Your task to perform on an android device: Search for pizza restaurants on Maps Image 0: 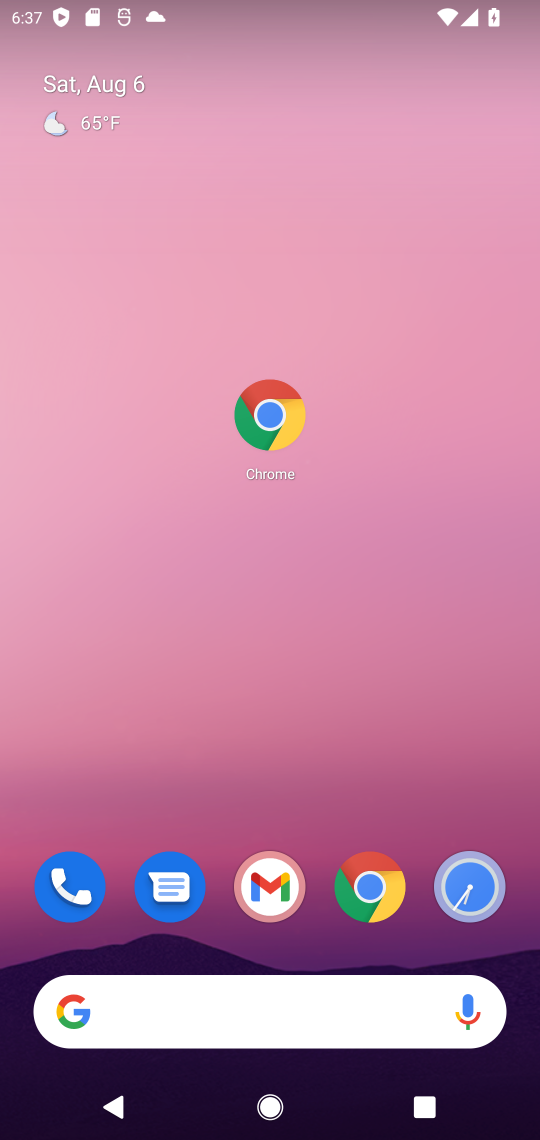
Step 0: drag from (100, 306) to (69, 59)
Your task to perform on an android device: Search for pizza restaurants on Maps Image 1: 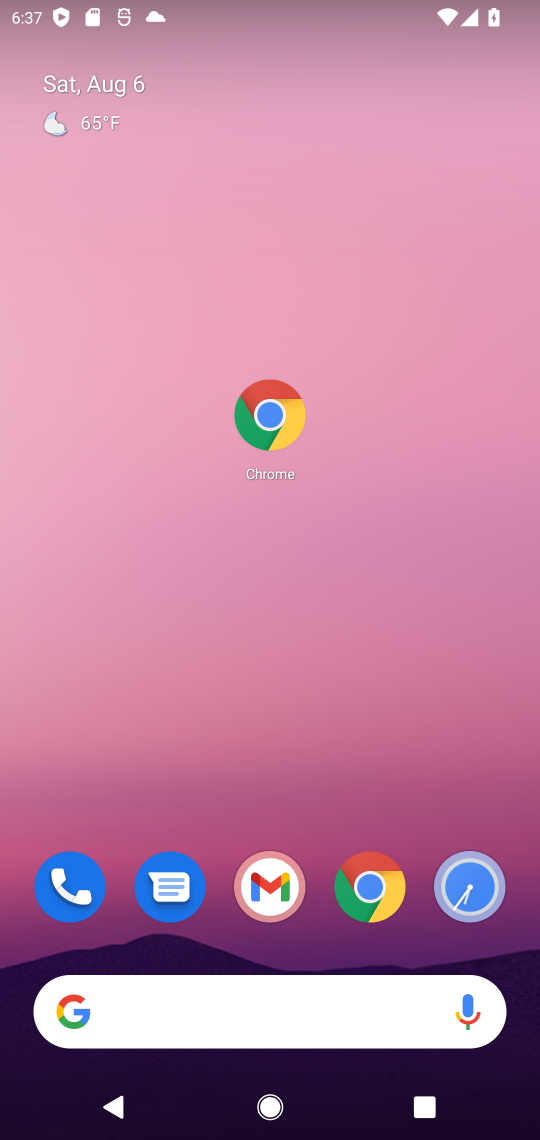
Step 1: drag from (154, 257) to (111, 27)
Your task to perform on an android device: Search for pizza restaurants on Maps Image 2: 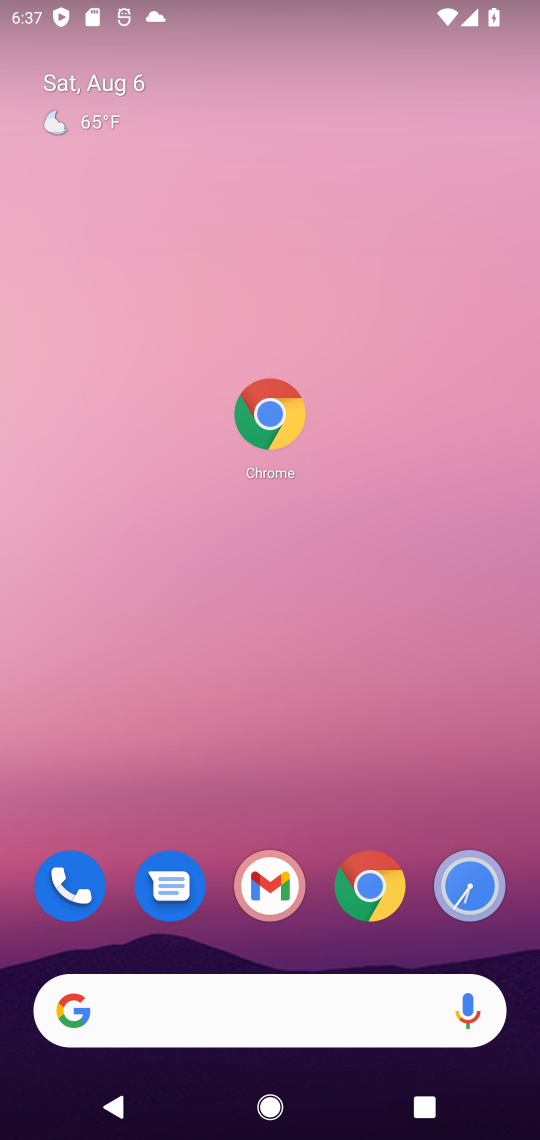
Step 2: drag from (183, 404) to (150, 218)
Your task to perform on an android device: Search for pizza restaurants on Maps Image 3: 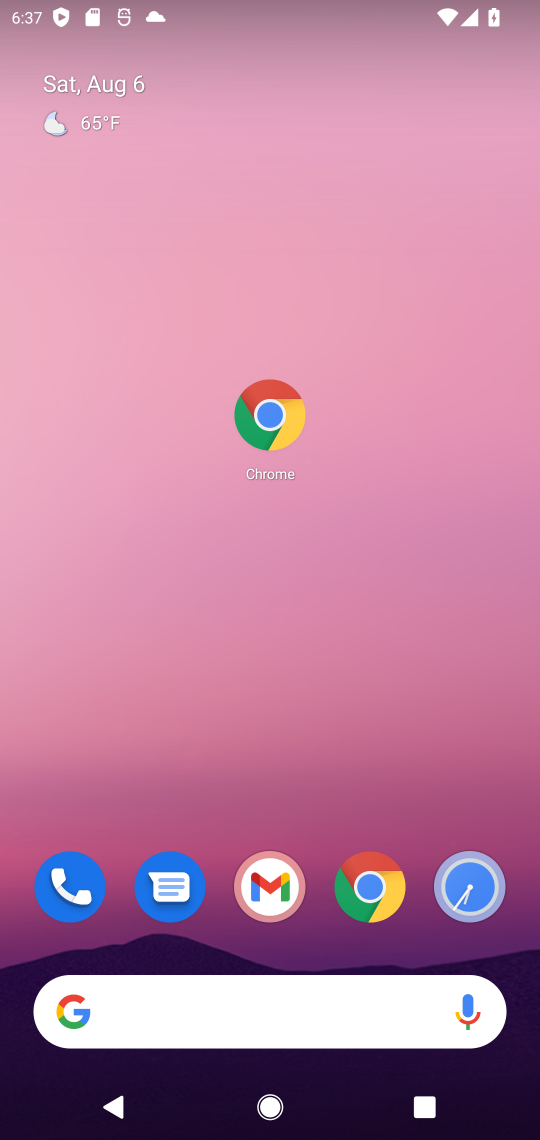
Step 3: drag from (239, 485) to (223, 377)
Your task to perform on an android device: Search for pizza restaurants on Maps Image 4: 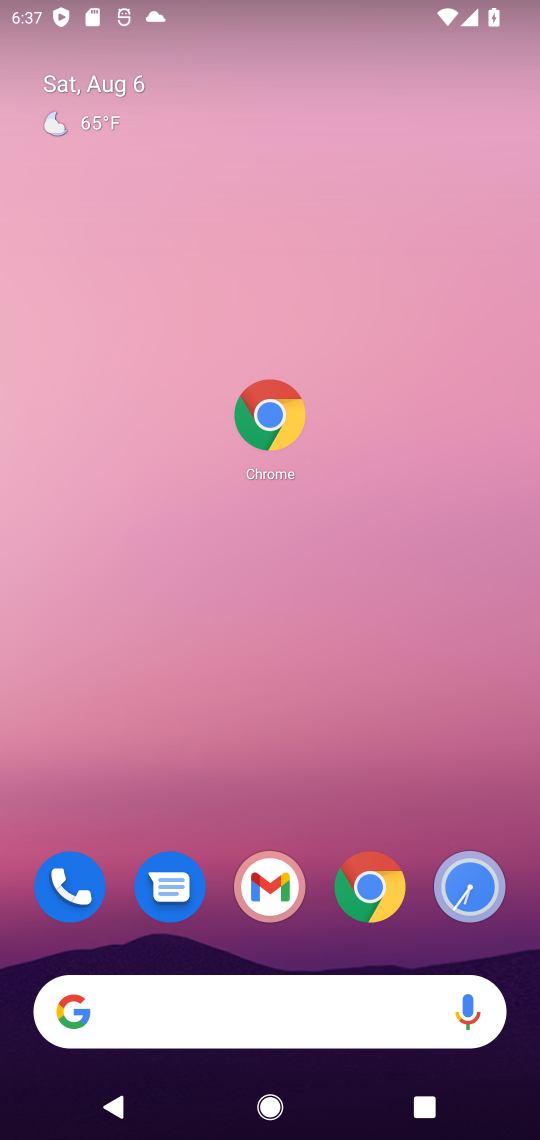
Step 4: click (279, 327)
Your task to perform on an android device: Search for pizza restaurants on Maps Image 5: 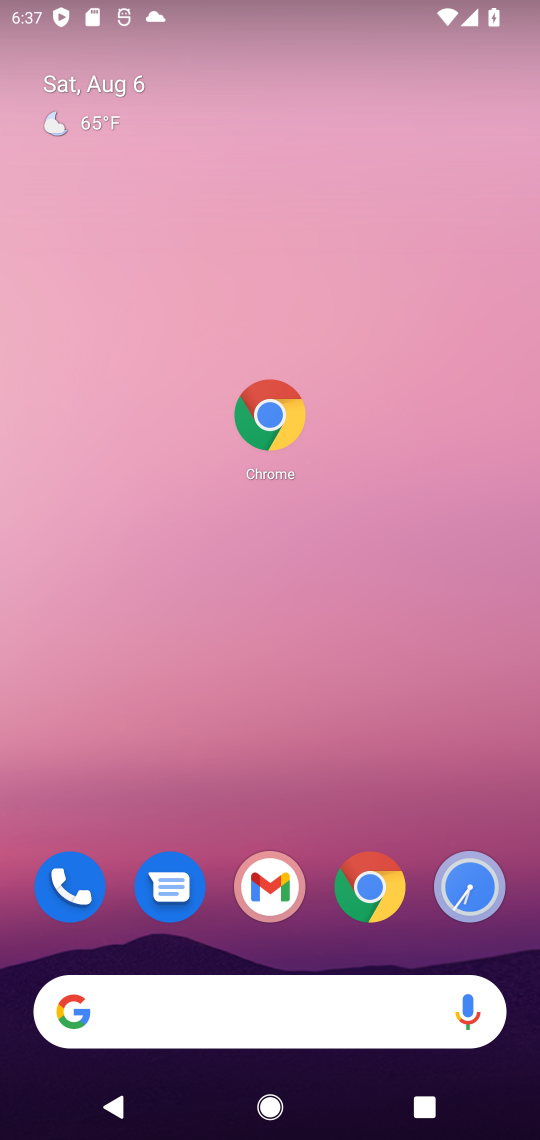
Step 5: drag from (260, 793) to (206, 380)
Your task to perform on an android device: Search for pizza restaurants on Maps Image 6: 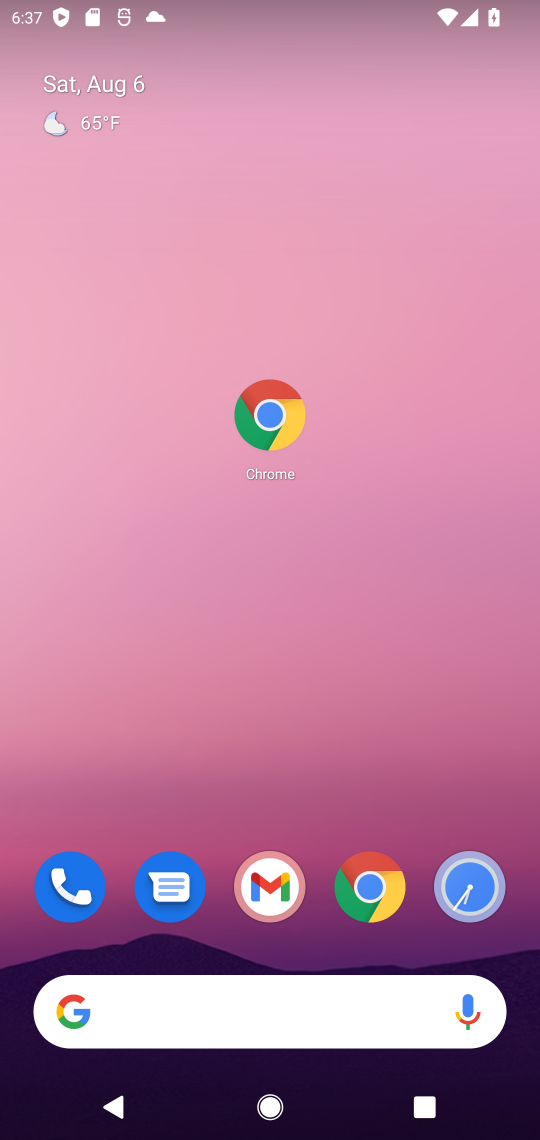
Step 6: drag from (328, 822) to (281, 241)
Your task to perform on an android device: Search for pizza restaurants on Maps Image 7: 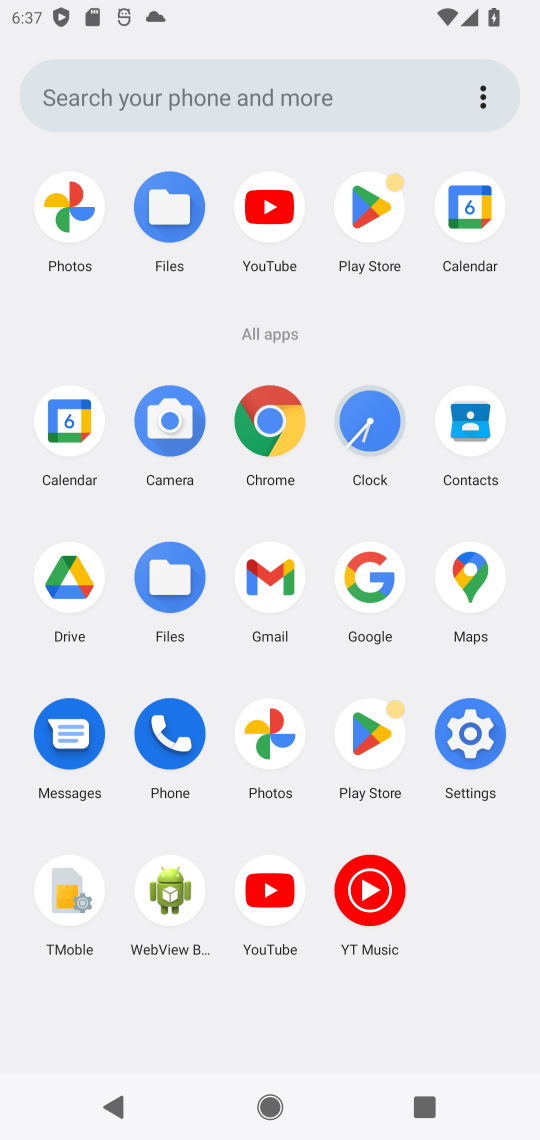
Step 7: click (193, 197)
Your task to perform on an android device: Search for pizza restaurants on Maps Image 8: 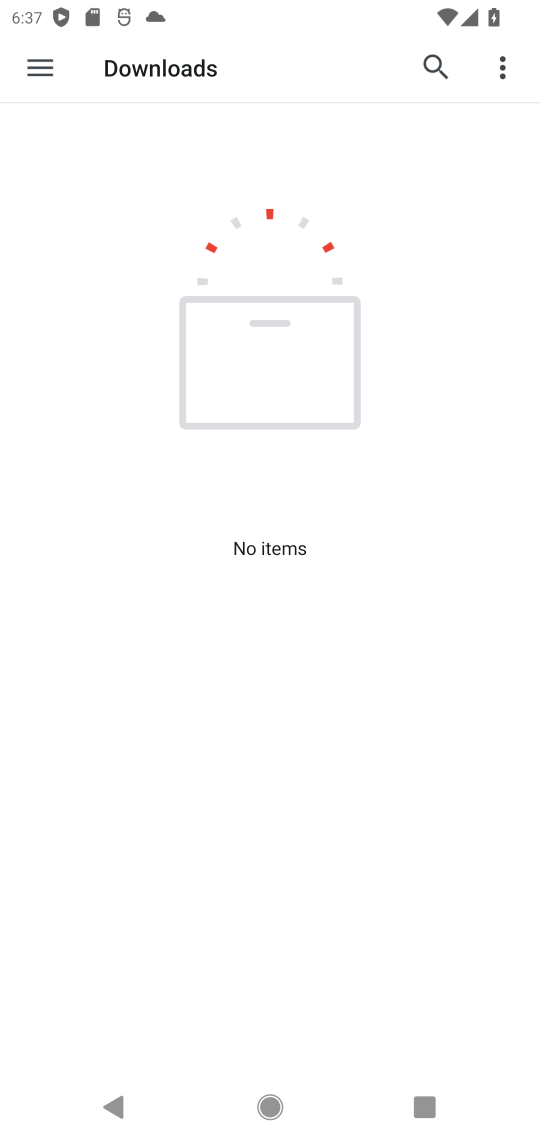
Step 8: press back button
Your task to perform on an android device: Search for pizza restaurants on Maps Image 9: 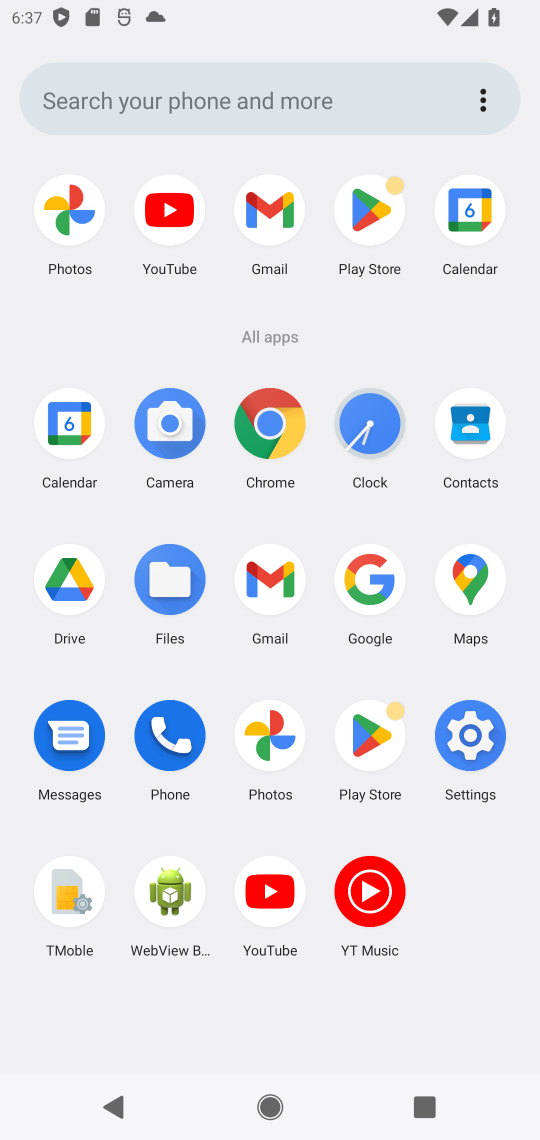
Step 9: click (472, 570)
Your task to perform on an android device: Search for pizza restaurants on Maps Image 10: 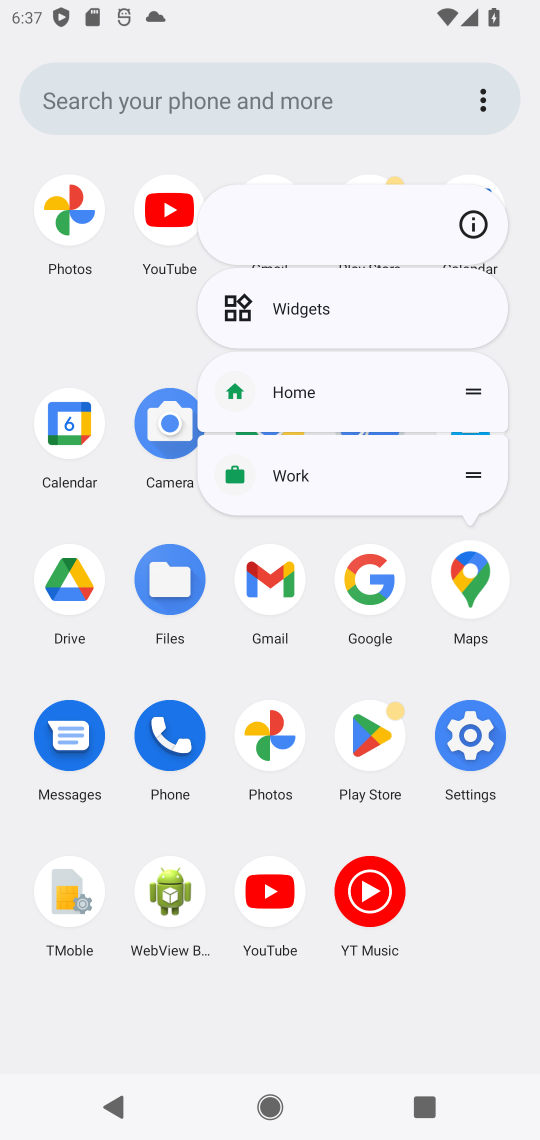
Step 10: click (472, 570)
Your task to perform on an android device: Search for pizza restaurants on Maps Image 11: 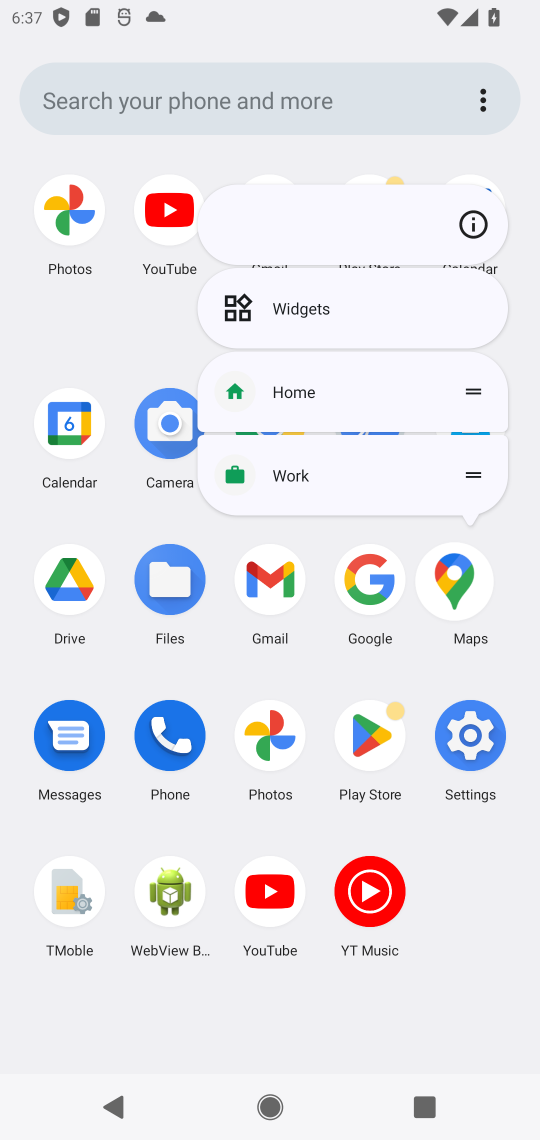
Step 11: click (453, 572)
Your task to perform on an android device: Search for pizza restaurants on Maps Image 12: 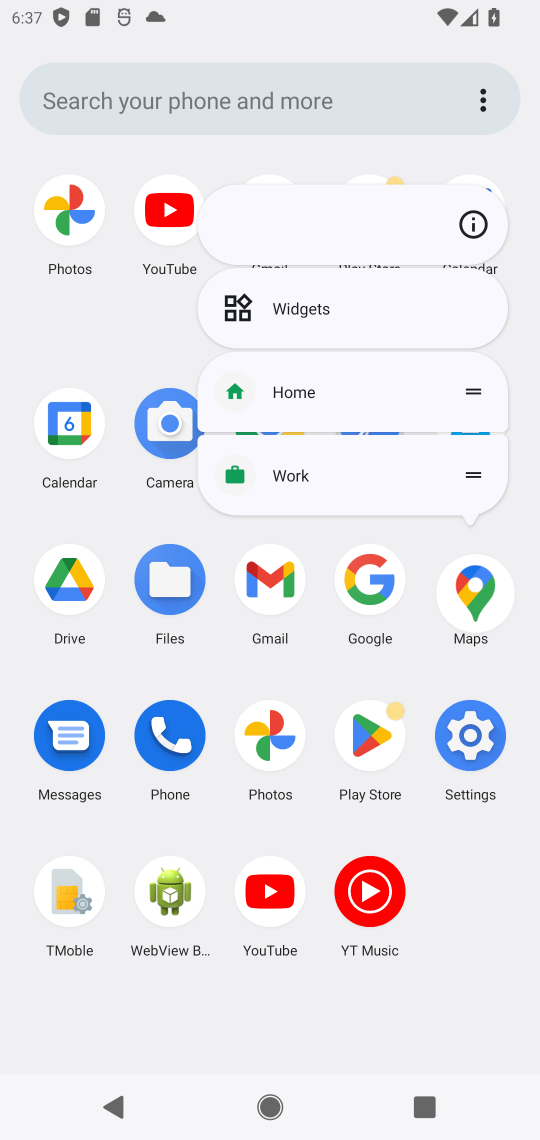
Step 12: click (458, 587)
Your task to perform on an android device: Search for pizza restaurants on Maps Image 13: 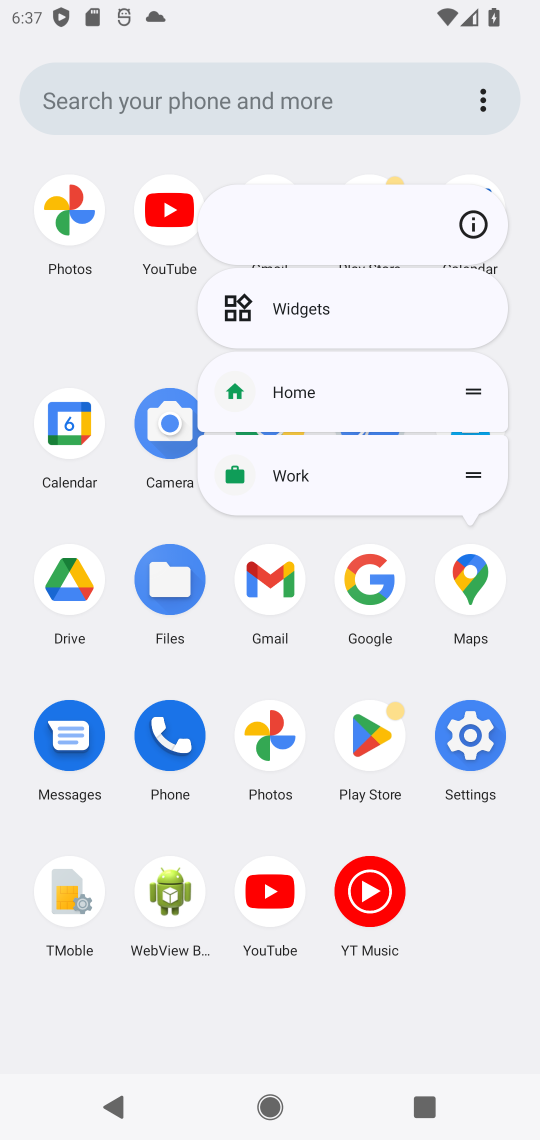
Step 13: click (468, 596)
Your task to perform on an android device: Search for pizza restaurants on Maps Image 14: 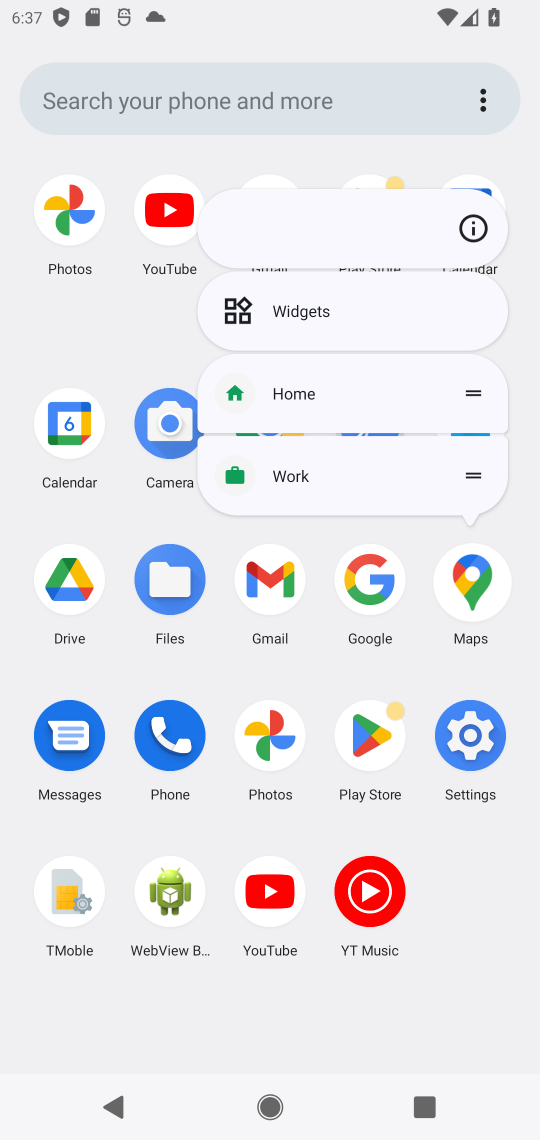
Step 14: click (459, 576)
Your task to perform on an android device: Search for pizza restaurants on Maps Image 15: 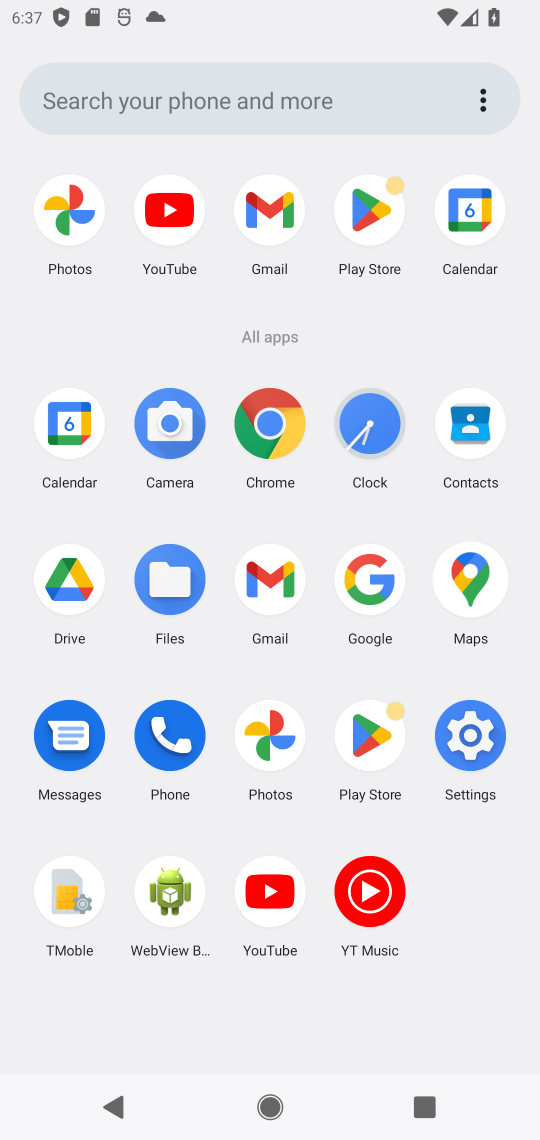
Step 15: click (459, 574)
Your task to perform on an android device: Search for pizza restaurants on Maps Image 16: 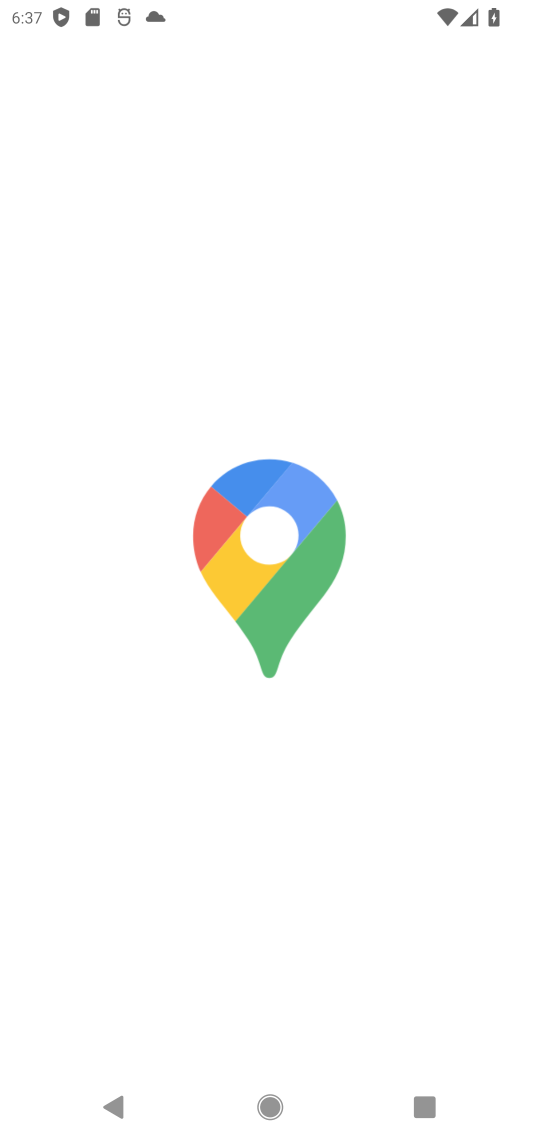
Step 16: click (268, 549)
Your task to perform on an android device: Search for pizza restaurants on Maps Image 17: 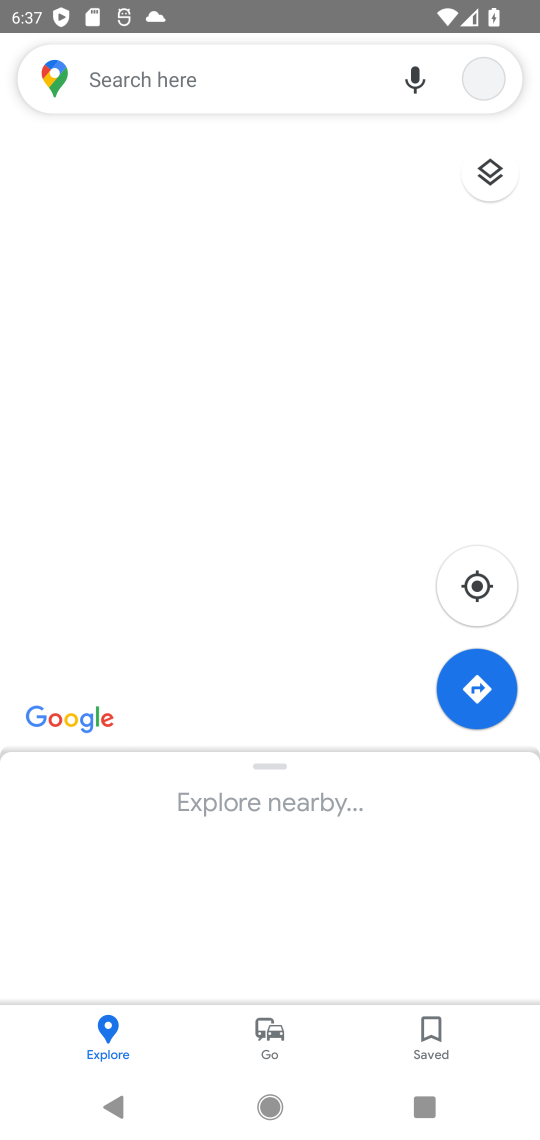
Step 17: click (131, 78)
Your task to perform on an android device: Search for pizza restaurants on Maps Image 18: 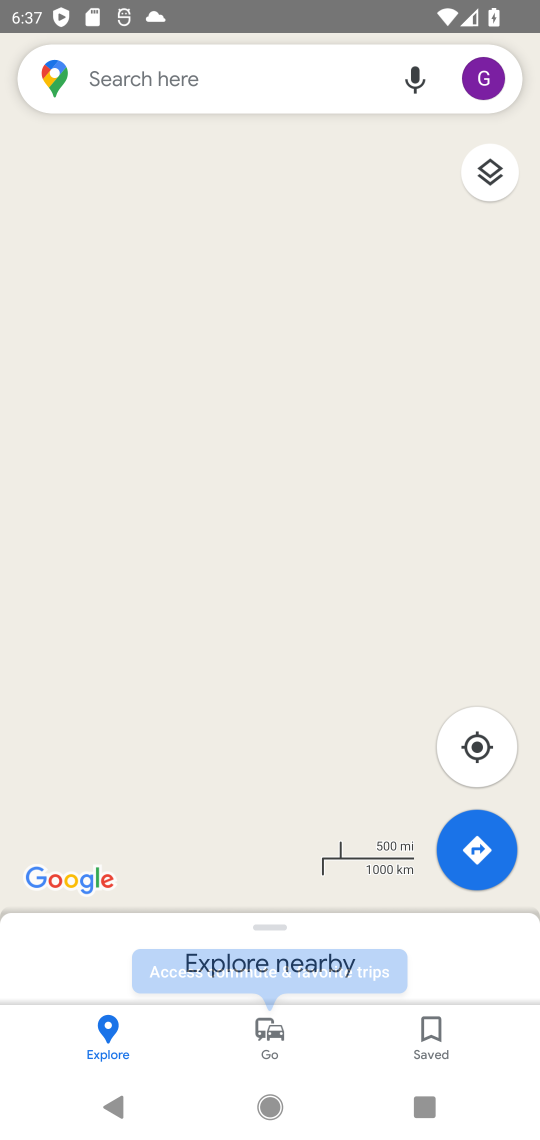
Step 18: click (104, 70)
Your task to perform on an android device: Search for pizza restaurants on Maps Image 19: 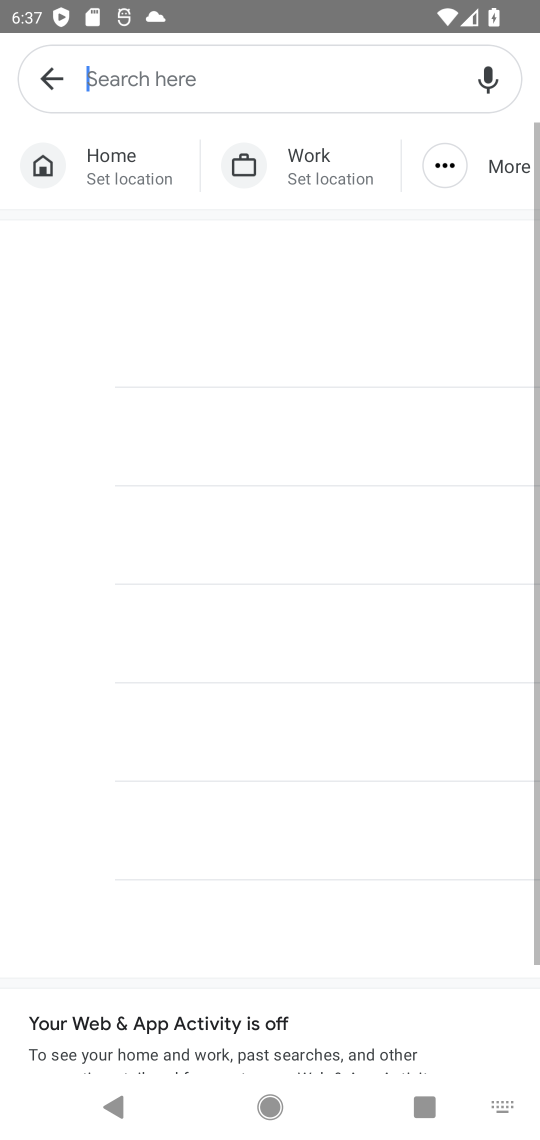
Step 19: click (132, 75)
Your task to perform on an android device: Search for pizza restaurants on Maps Image 20: 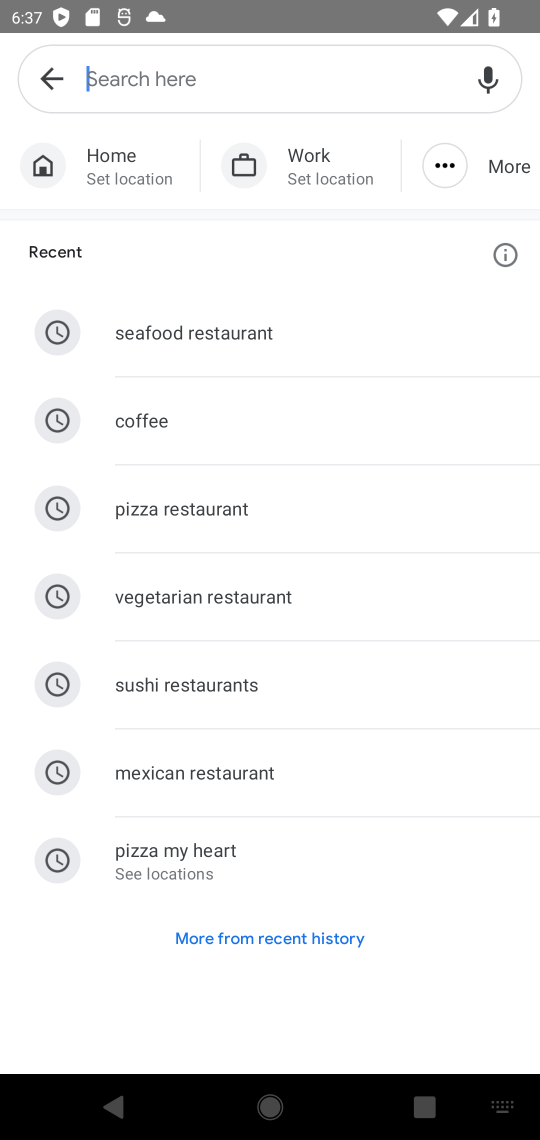
Step 20: type "pizza restaurants"
Your task to perform on an android device: Search for pizza restaurants on Maps Image 21: 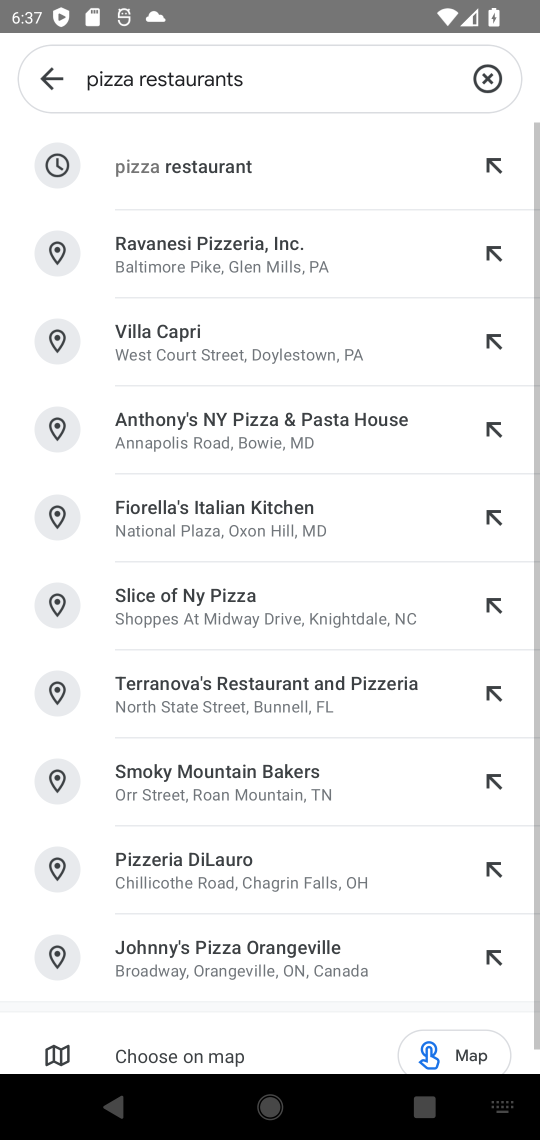
Step 21: click (168, 159)
Your task to perform on an android device: Search for pizza restaurants on Maps Image 22: 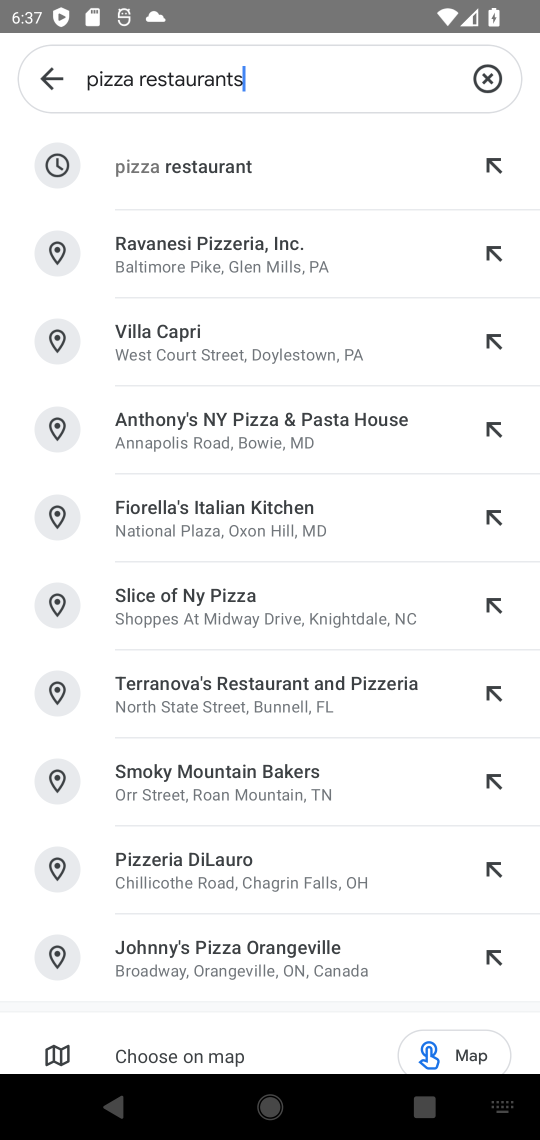
Step 22: click (168, 159)
Your task to perform on an android device: Search for pizza restaurants on Maps Image 23: 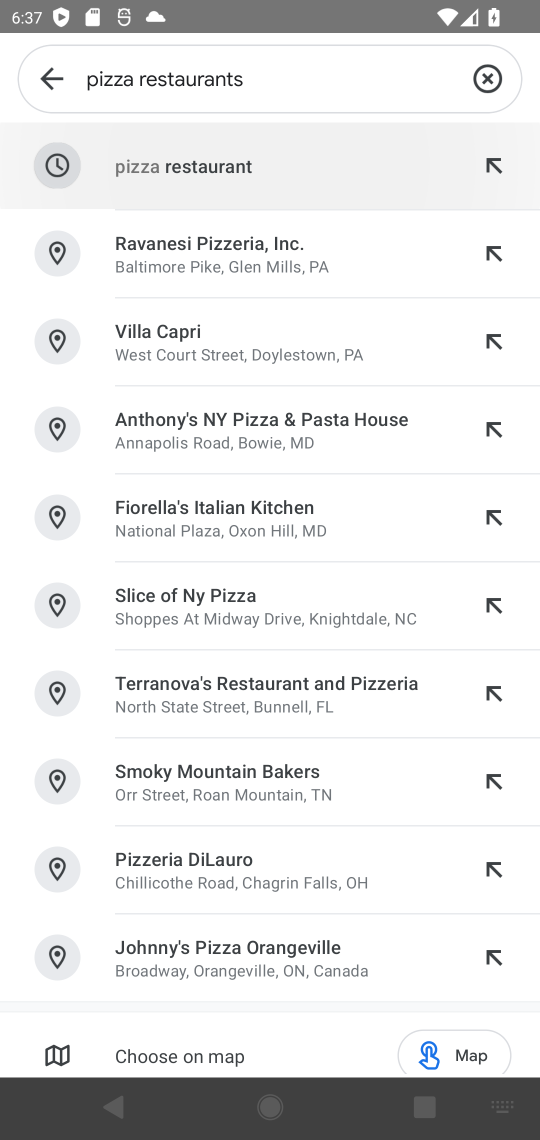
Step 23: click (168, 159)
Your task to perform on an android device: Search for pizza restaurants on Maps Image 24: 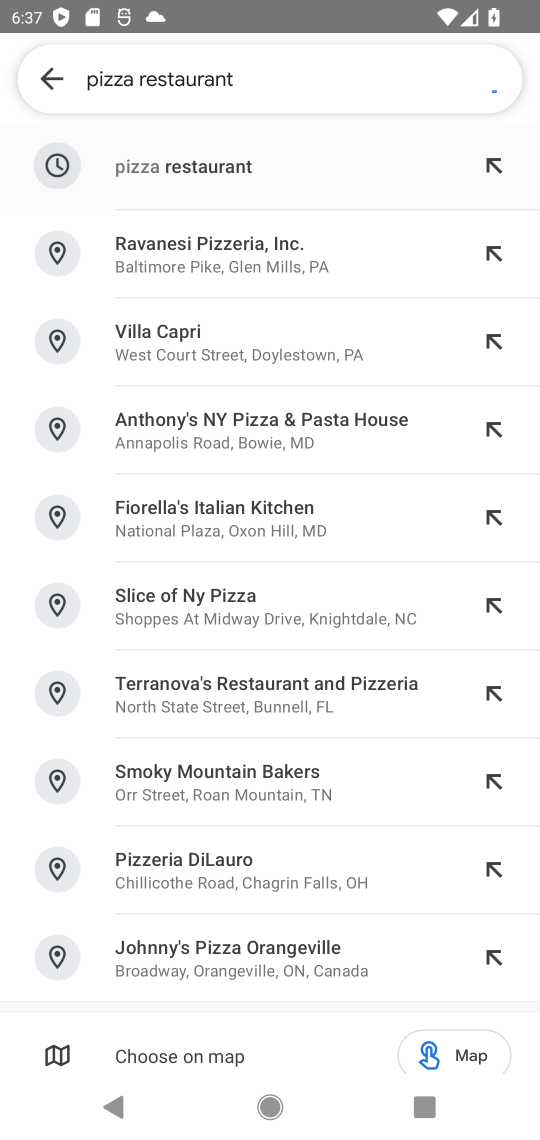
Step 24: click (170, 162)
Your task to perform on an android device: Search for pizza restaurants on Maps Image 25: 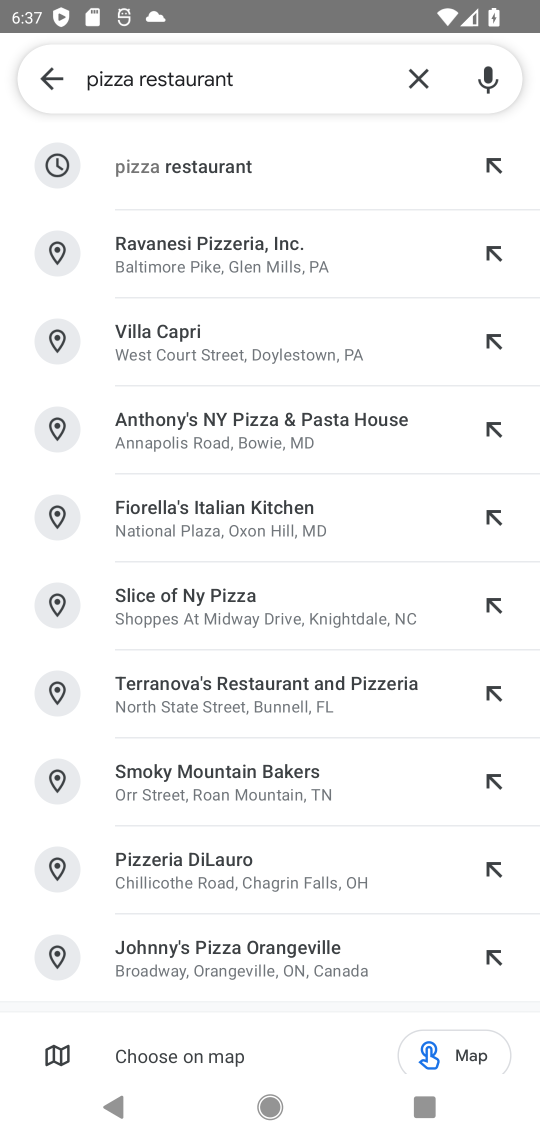
Step 25: click (182, 182)
Your task to perform on an android device: Search for pizza restaurants on Maps Image 26: 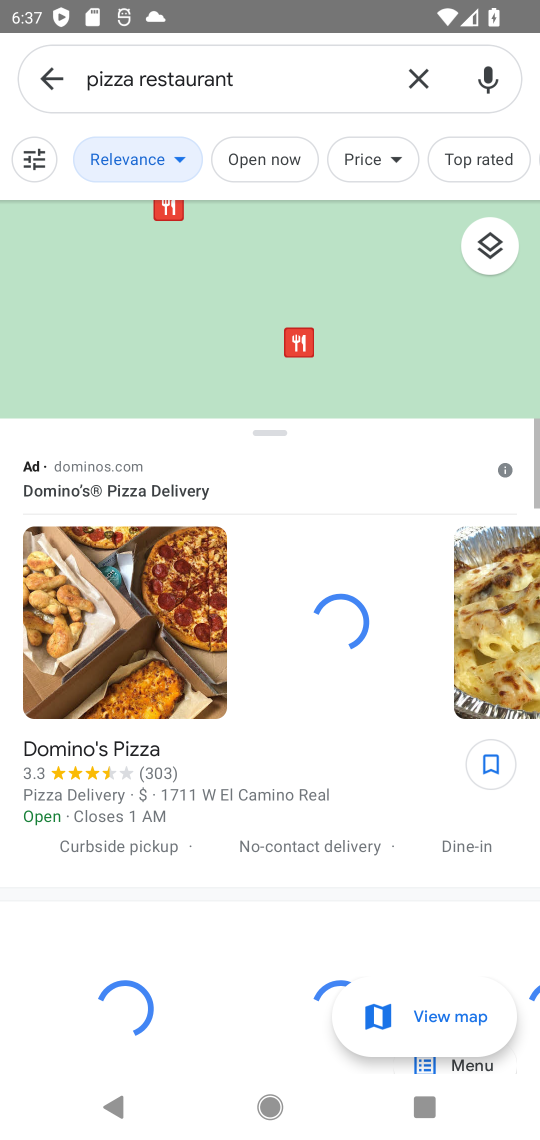
Step 26: task complete